Your task to perform on an android device: Open Youtube and go to "Your channel" Image 0: 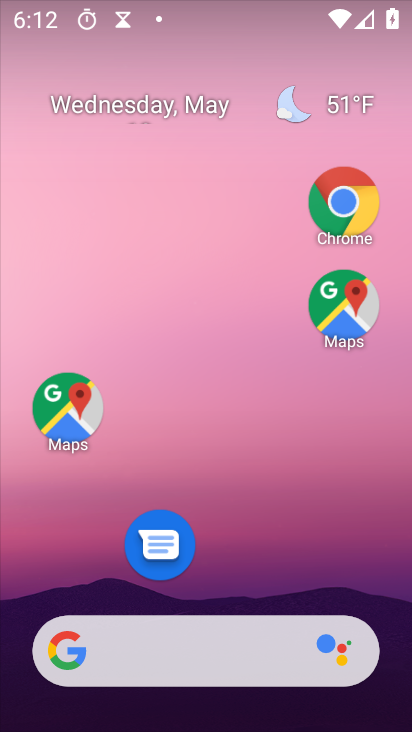
Step 0: drag from (263, 589) to (264, 99)
Your task to perform on an android device: Open Youtube and go to "Your channel" Image 1: 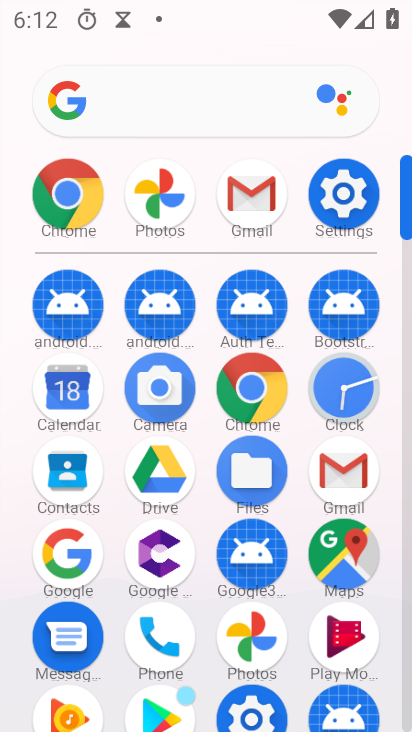
Step 1: drag from (268, 613) to (292, 186)
Your task to perform on an android device: Open Youtube and go to "Your channel" Image 2: 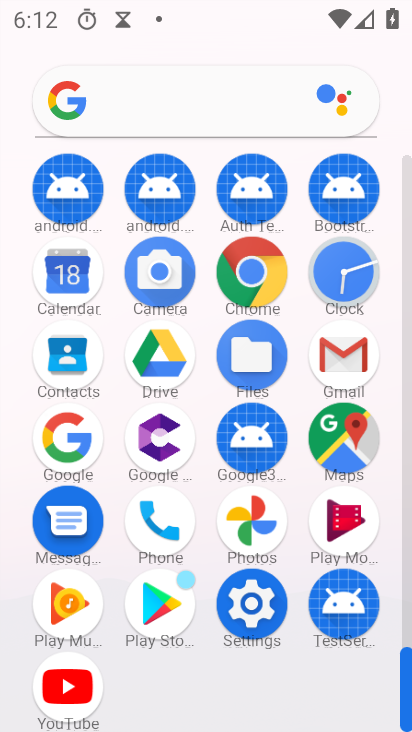
Step 2: click (68, 692)
Your task to perform on an android device: Open Youtube and go to "Your channel" Image 3: 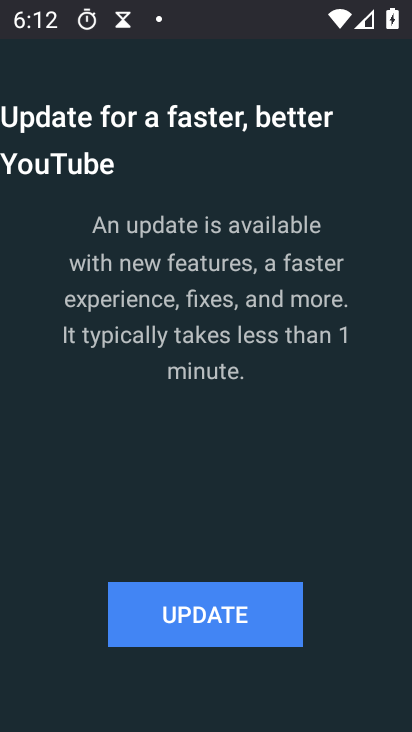
Step 3: click (222, 623)
Your task to perform on an android device: Open Youtube and go to "Your channel" Image 4: 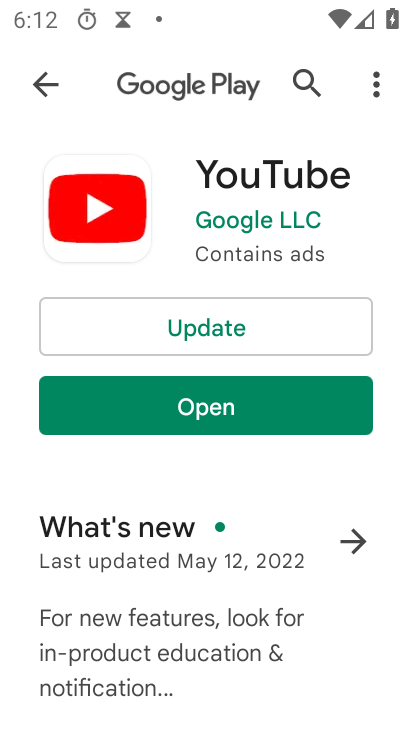
Step 4: click (210, 340)
Your task to perform on an android device: Open Youtube and go to "Your channel" Image 5: 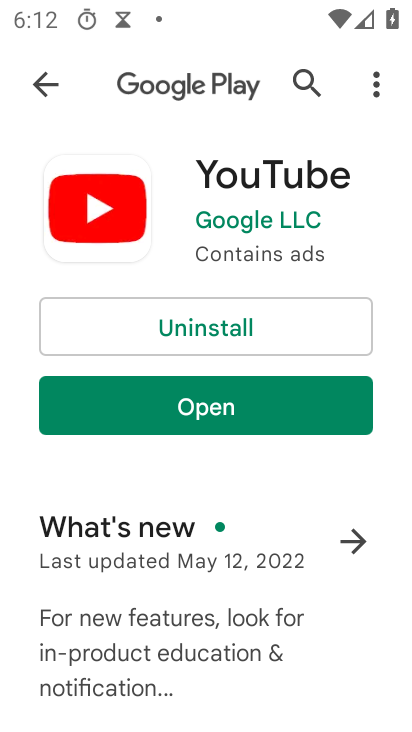
Step 5: click (184, 399)
Your task to perform on an android device: Open Youtube and go to "Your channel" Image 6: 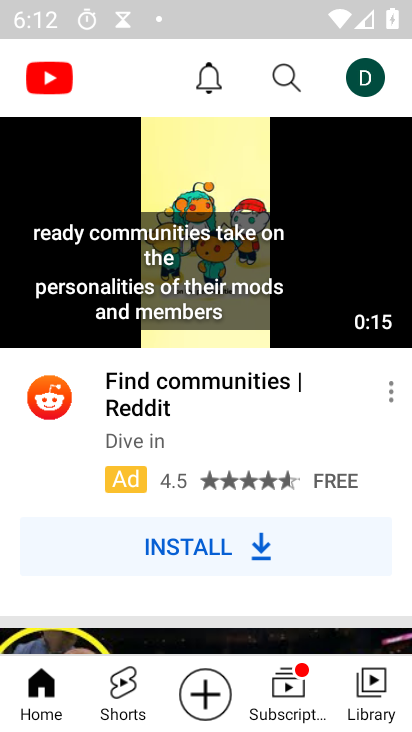
Step 6: click (352, 89)
Your task to perform on an android device: Open Youtube and go to "Your channel" Image 7: 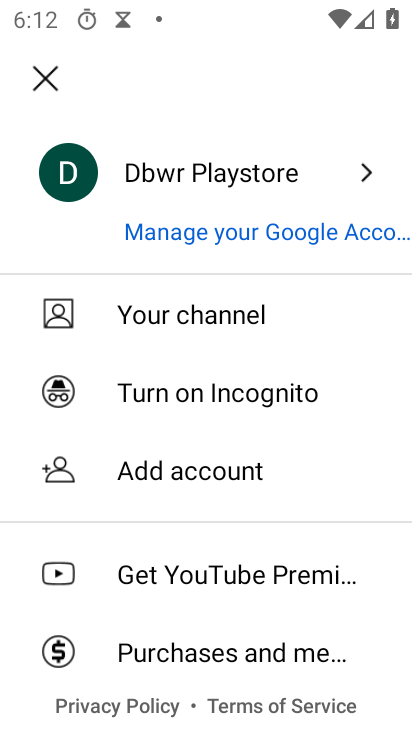
Step 7: click (195, 307)
Your task to perform on an android device: Open Youtube and go to "Your channel" Image 8: 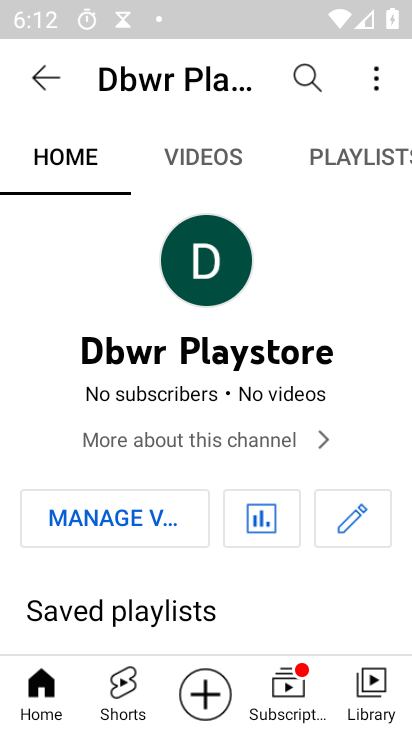
Step 8: task complete